Your task to perform on an android device: Go to accessibility settings Image 0: 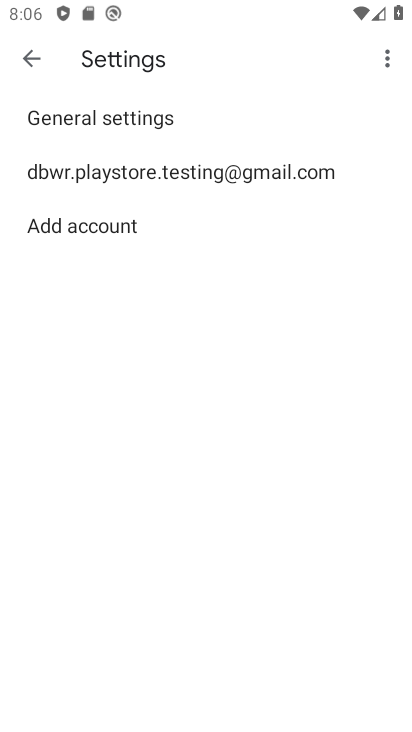
Step 0: press home button
Your task to perform on an android device: Go to accessibility settings Image 1: 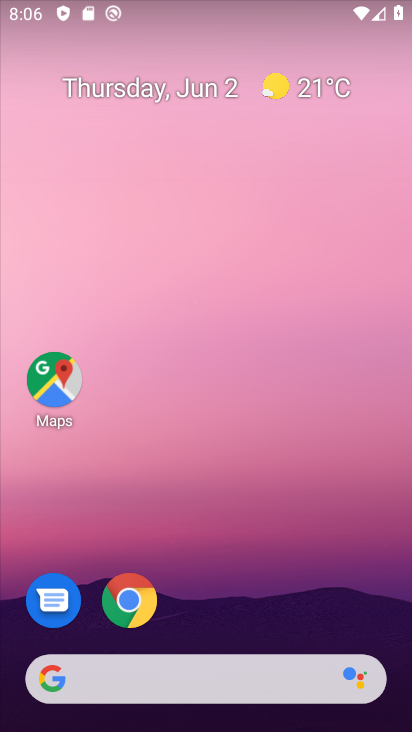
Step 1: drag from (212, 613) to (257, 200)
Your task to perform on an android device: Go to accessibility settings Image 2: 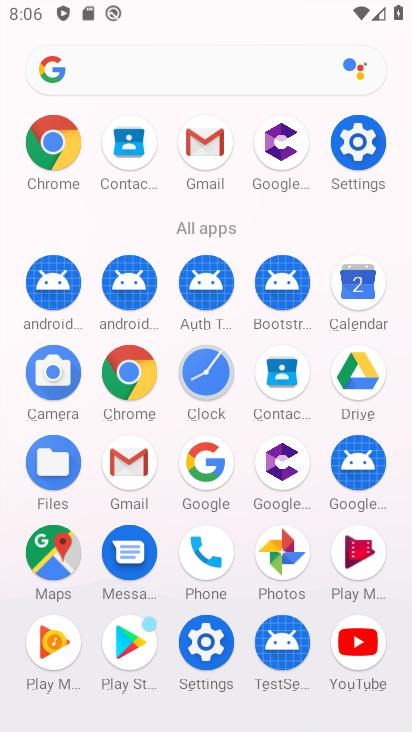
Step 2: click (336, 138)
Your task to perform on an android device: Go to accessibility settings Image 3: 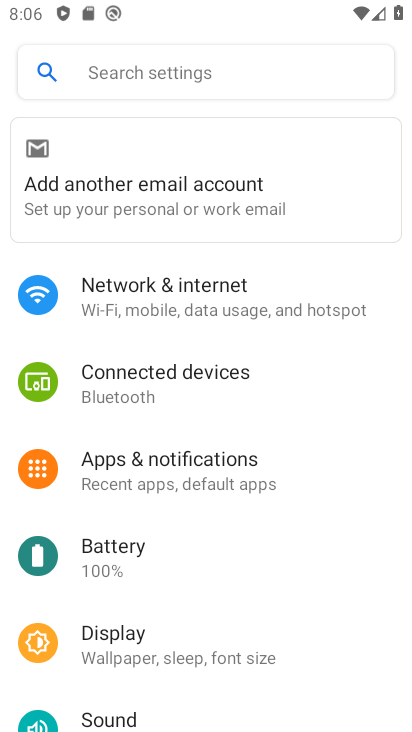
Step 3: drag from (181, 716) to (213, 421)
Your task to perform on an android device: Go to accessibility settings Image 4: 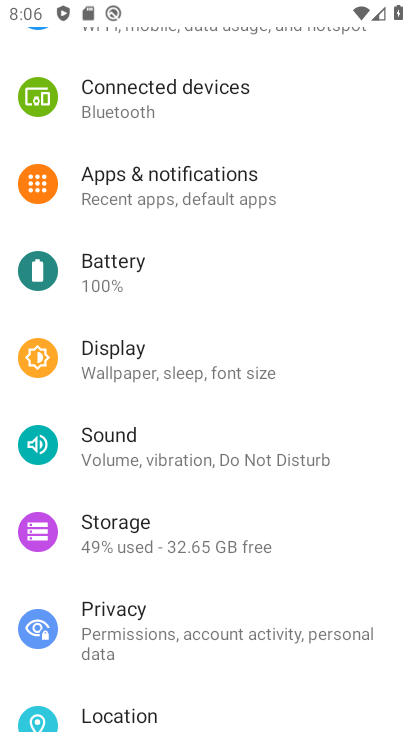
Step 4: drag from (197, 603) to (236, 297)
Your task to perform on an android device: Go to accessibility settings Image 5: 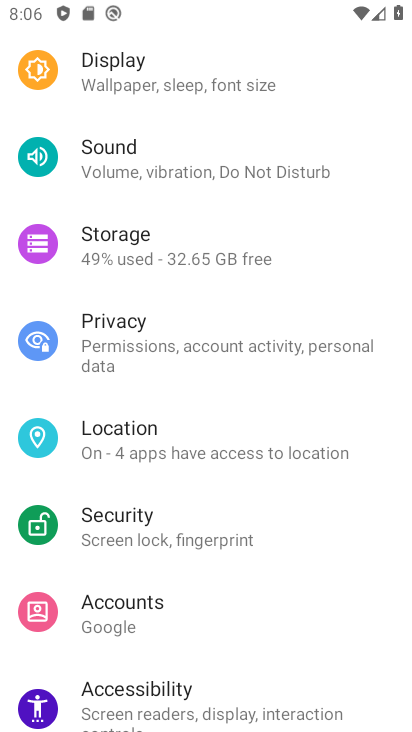
Step 5: click (186, 683)
Your task to perform on an android device: Go to accessibility settings Image 6: 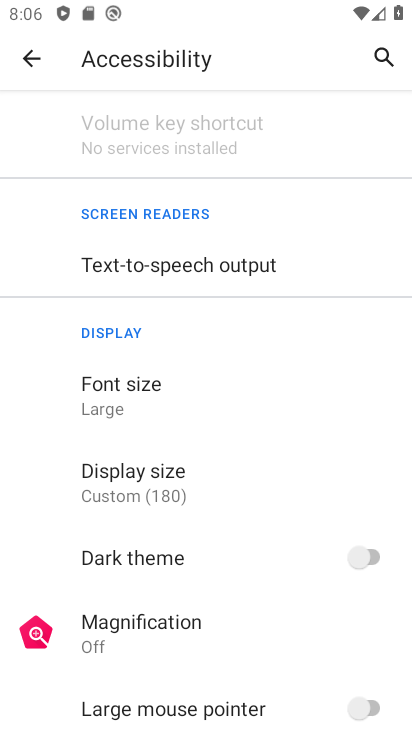
Step 6: task complete